Your task to perform on an android device: Search for "corsair k70" on bestbuy.com, select the first entry, add it to the cart, then select checkout. Image 0: 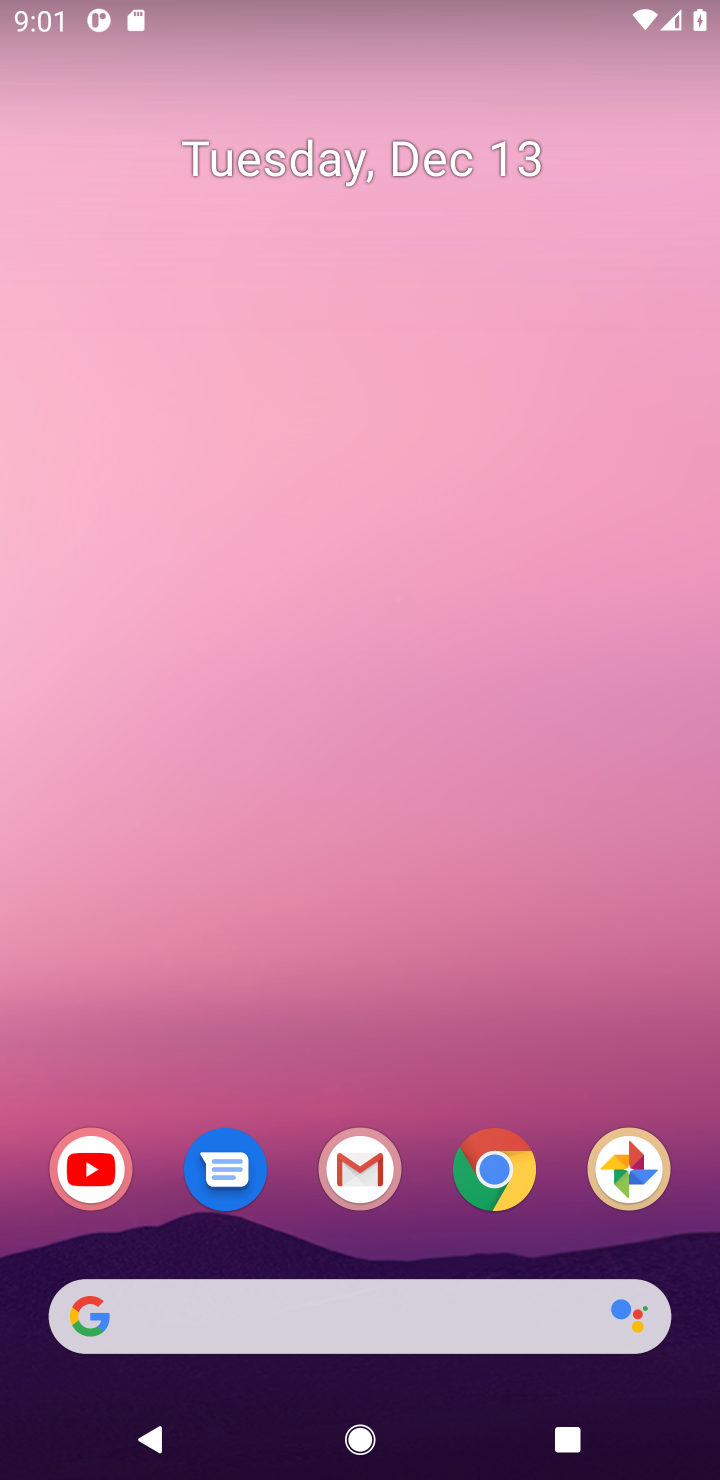
Step 0: click (472, 1201)
Your task to perform on an android device: Search for "corsair k70" on bestbuy.com, select the first entry, add it to the cart, then select checkout. Image 1: 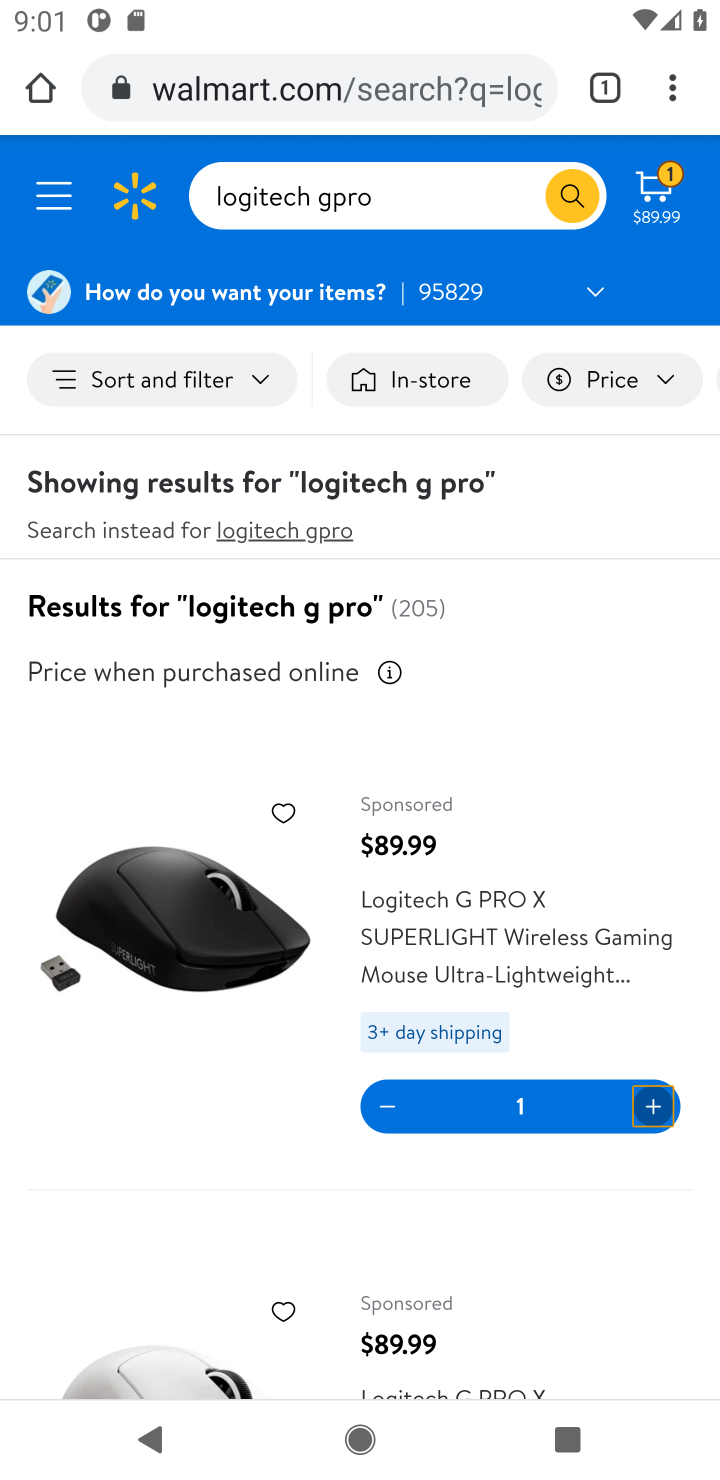
Step 1: click (267, 114)
Your task to perform on an android device: Search for "corsair k70" on bestbuy.com, select the first entry, add it to the cart, then select checkout. Image 2: 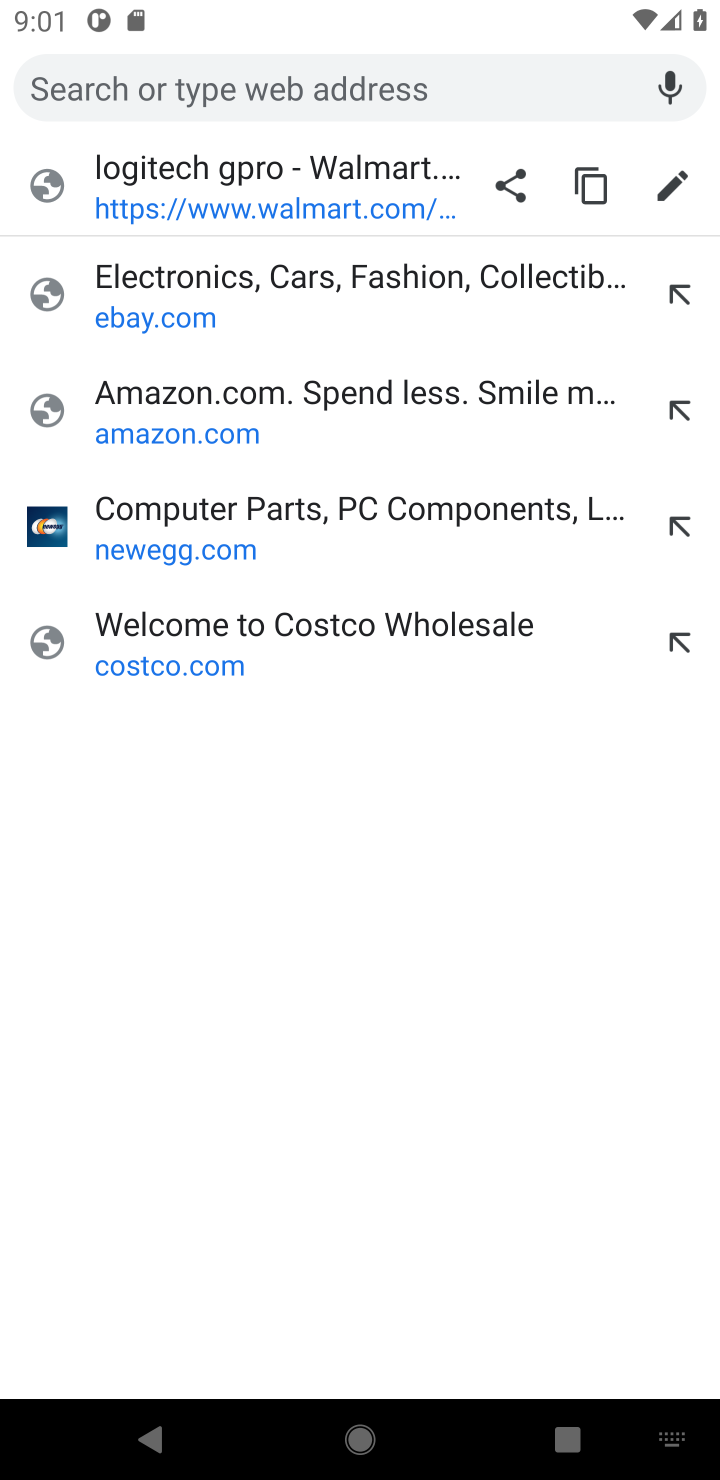
Step 2: type "esybuy"
Your task to perform on an android device: Search for "corsair k70" on bestbuy.com, select the first entry, add it to the cart, then select checkout. Image 3: 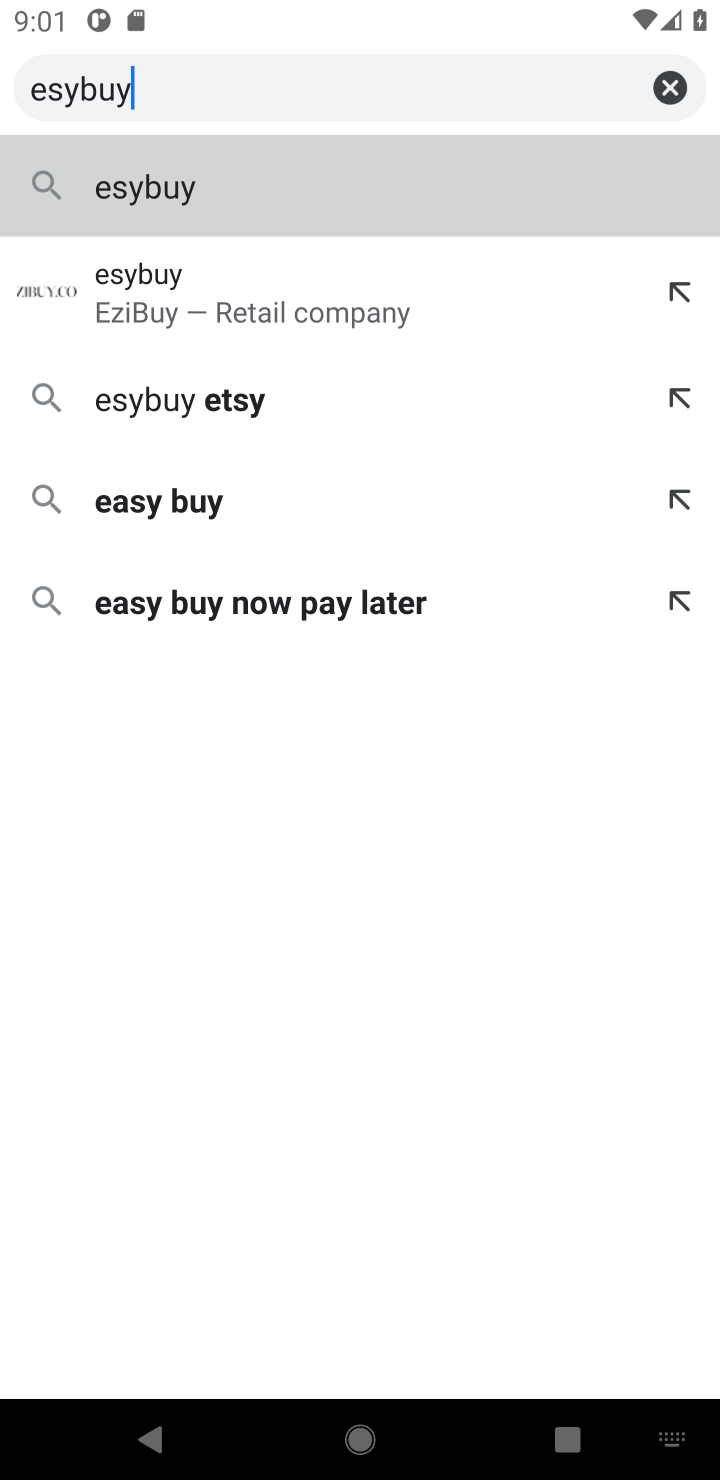
Step 3: click (653, 94)
Your task to perform on an android device: Search for "corsair k70" on bestbuy.com, select the first entry, add it to the cart, then select checkout. Image 4: 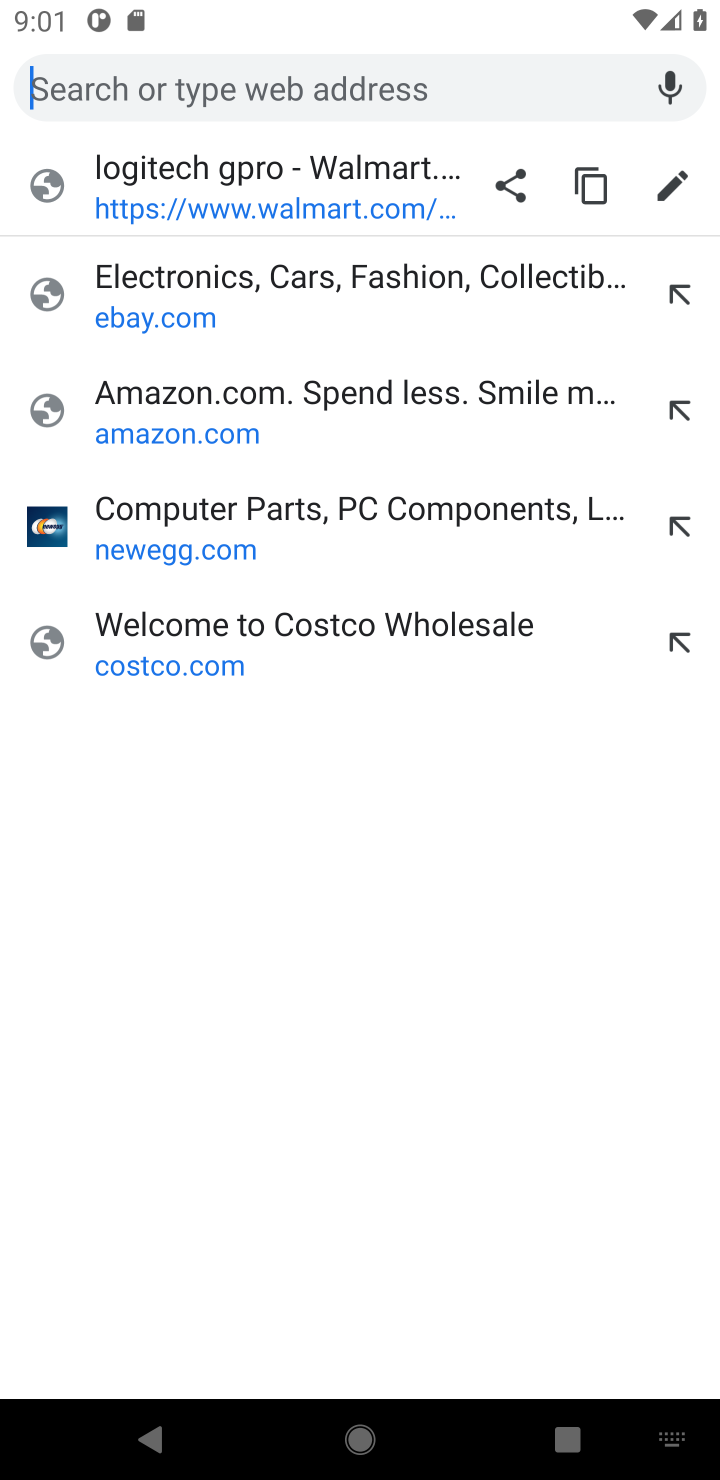
Step 4: type "bestbuy"
Your task to perform on an android device: Search for "corsair k70" on bestbuy.com, select the first entry, add it to the cart, then select checkout. Image 5: 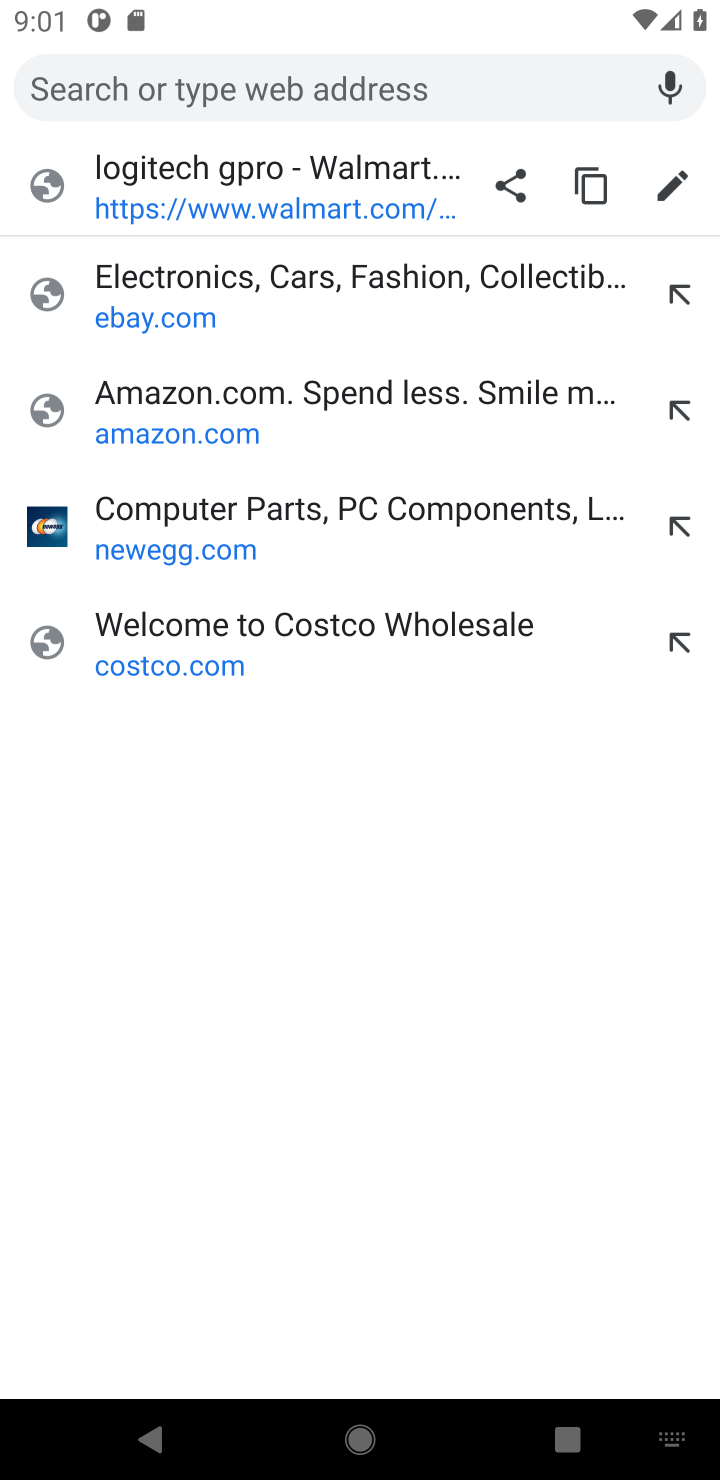
Step 5: click (272, 82)
Your task to perform on an android device: Search for "corsair k70" on bestbuy.com, select the first entry, add it to the cart, then select checkout. Image 6: 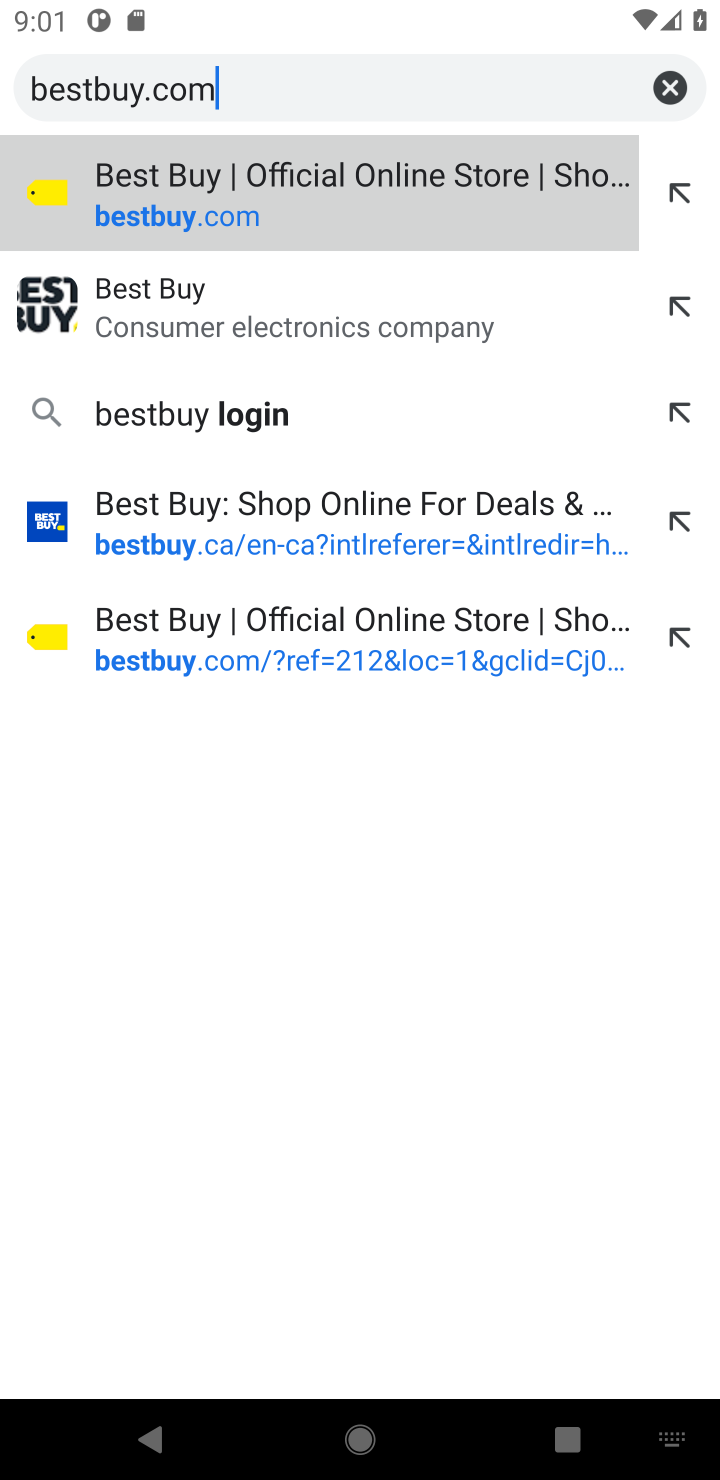
Step 6: click (272, 82)
Your task to perform on an android device: Search for "corsair k70" on bestbuy.com, select the first entry, add it to the cart, then select checkout. Image 7: 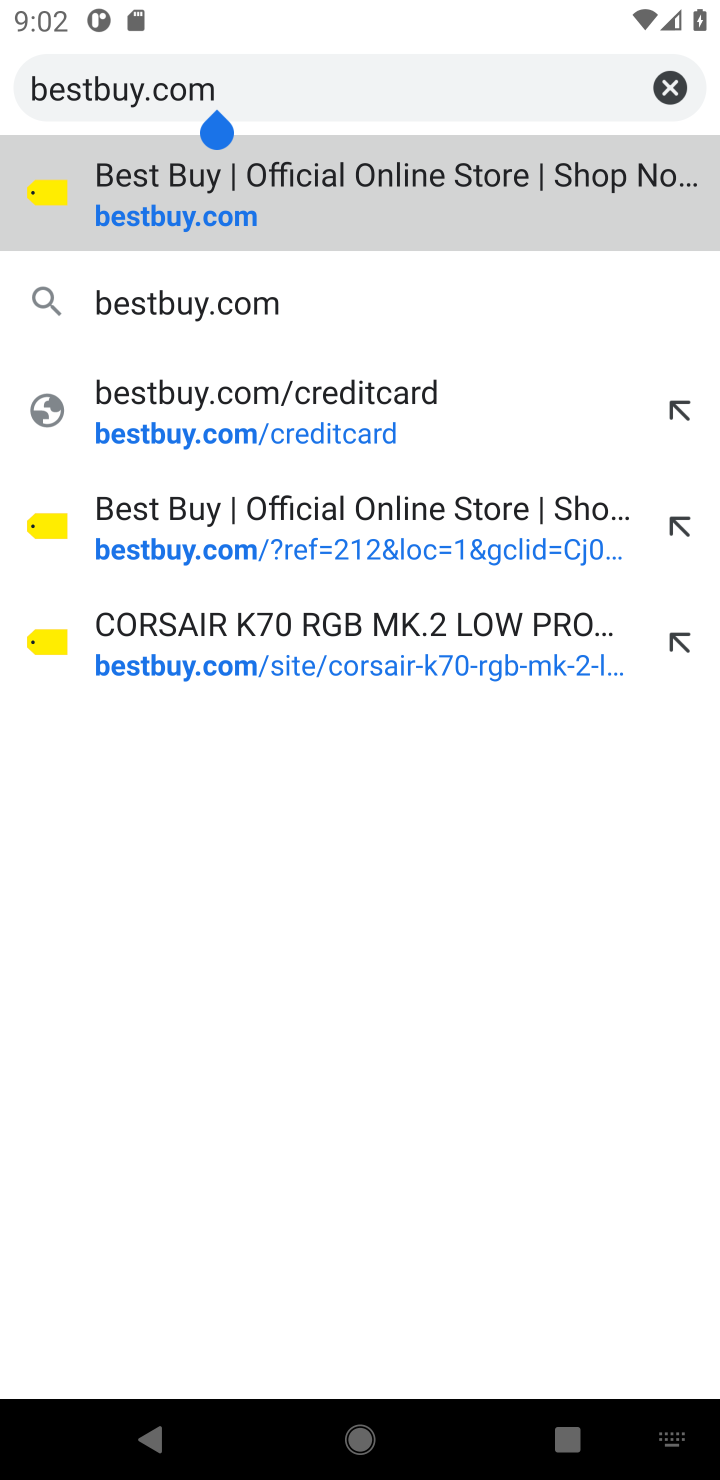
Step 7: click (253, 183)
Your task to perform on an android device: Search for "corsair k70" on bestbuy.com, select the first entry, add it to the cart, then select checkout. Image 8: 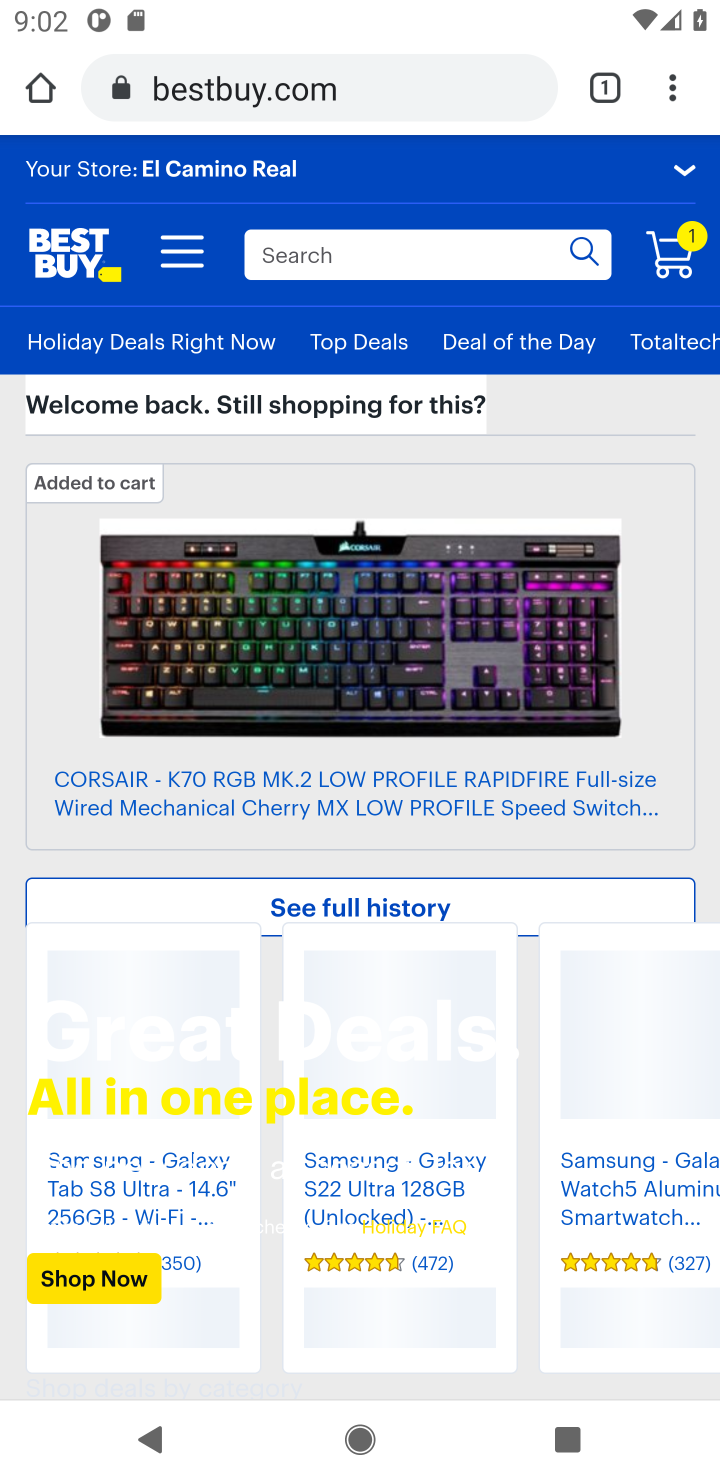
Step 8: click (459, 266)
Your task to perform on an android device: Search for "corsair k70" on bestbuy.com, select the first entry, add it to the cart, then select checkout. Image 9: 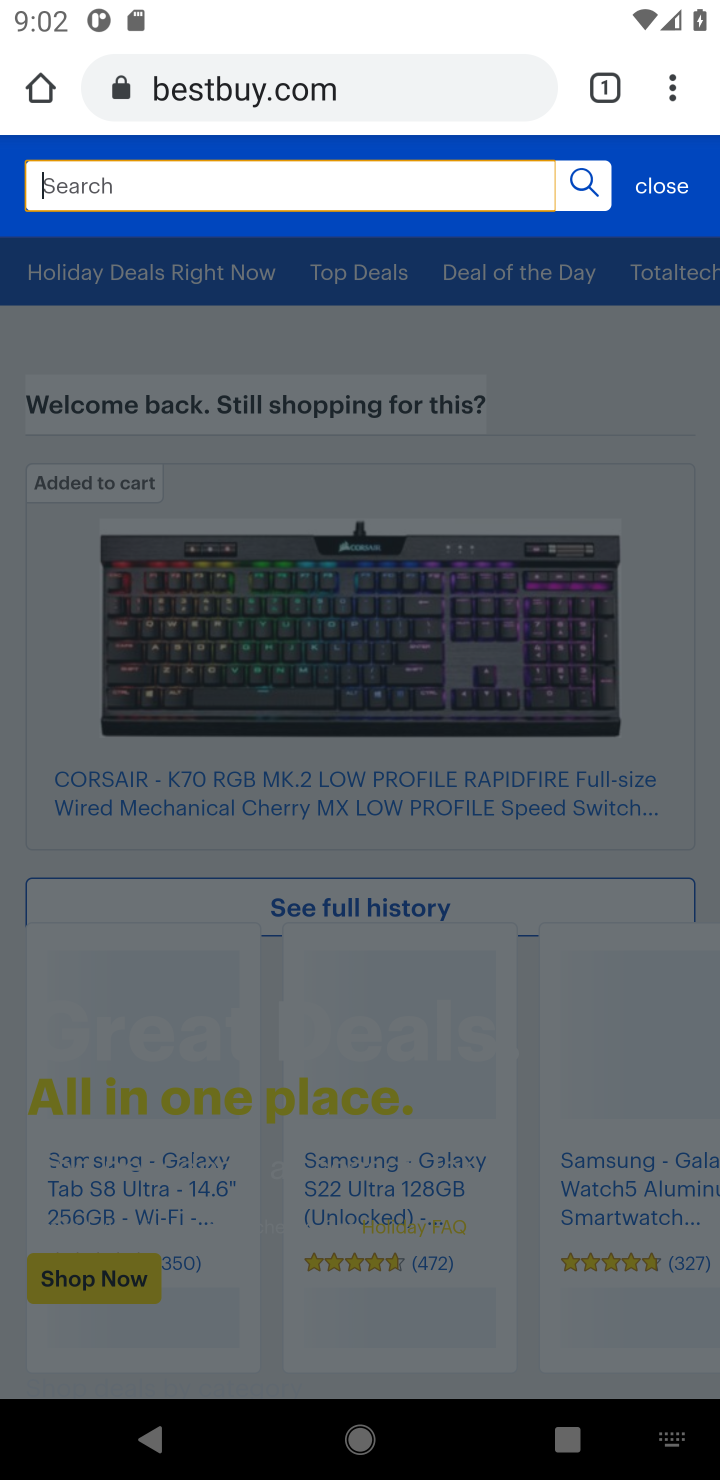
Step 9: type "corsair k70"
Your task to perform on an android device: Search for "corsair k70" on bestbuy.com, select the first entry, add it to the cart, then select checkout. Image 10: 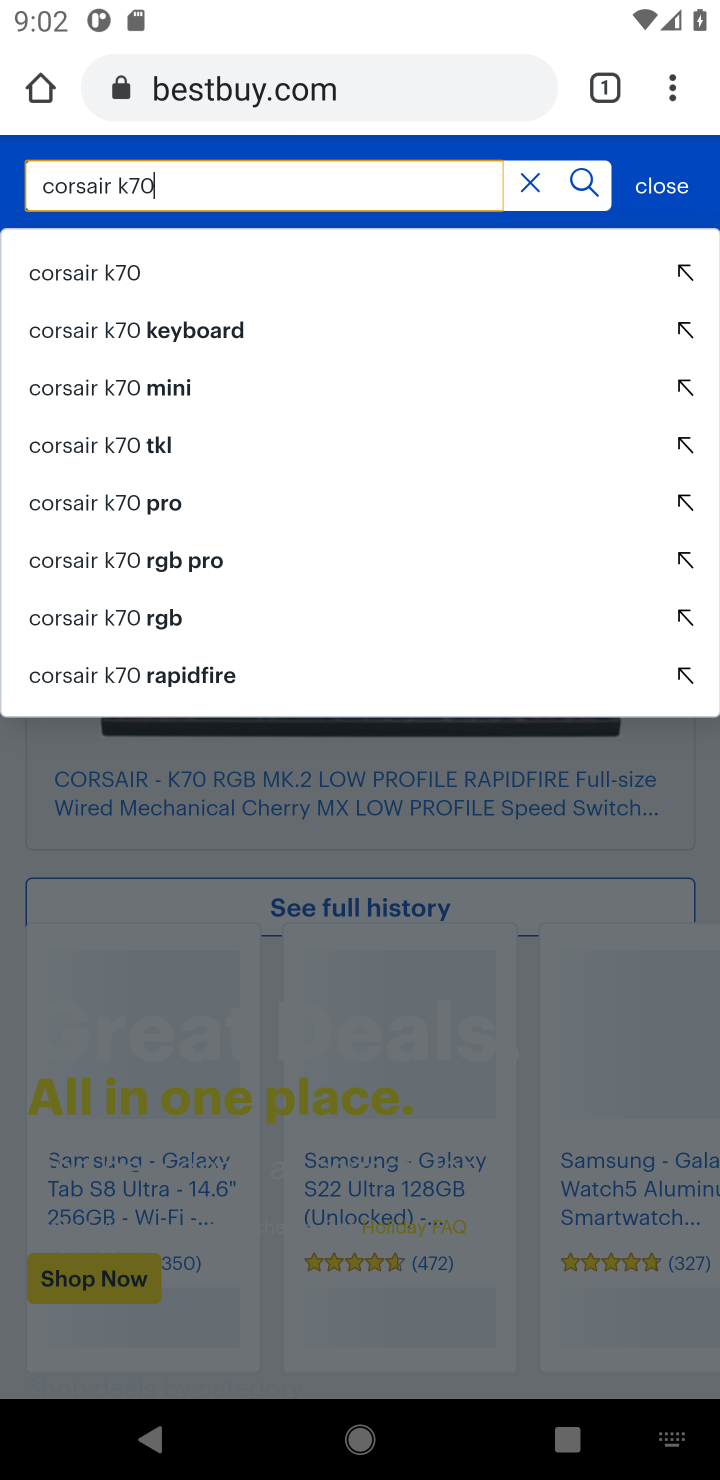
Step 10: click (18, 266)
Your task to perform on an android device: Search for "corsair k70" on bestbuy.com, select the first entry, add it to the cart, then select checkout. Image 11: 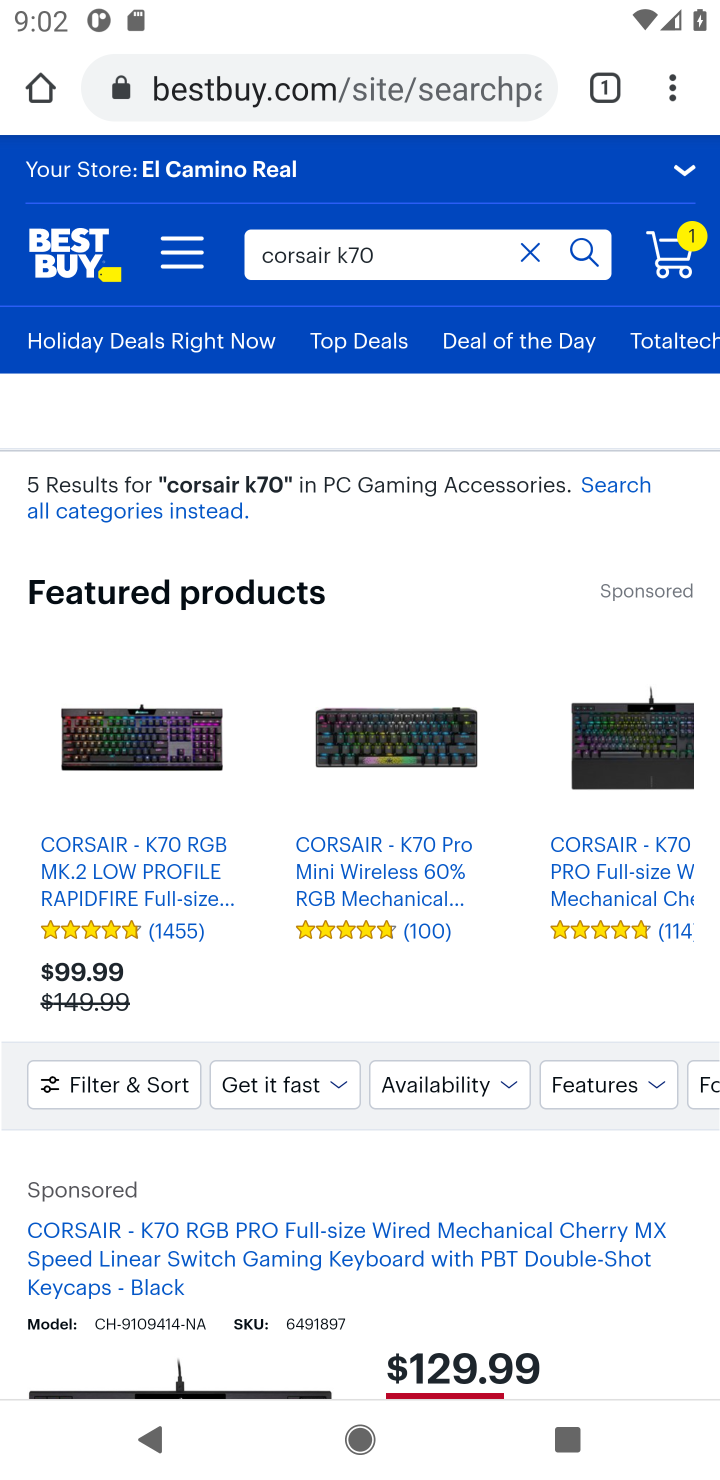
Step 11: click (143, 879)
Your task to perform on an android device: Search for "corsair k70" on bestbuy.com, select the first entry, add it to the cart, then select checkout. Image 12: 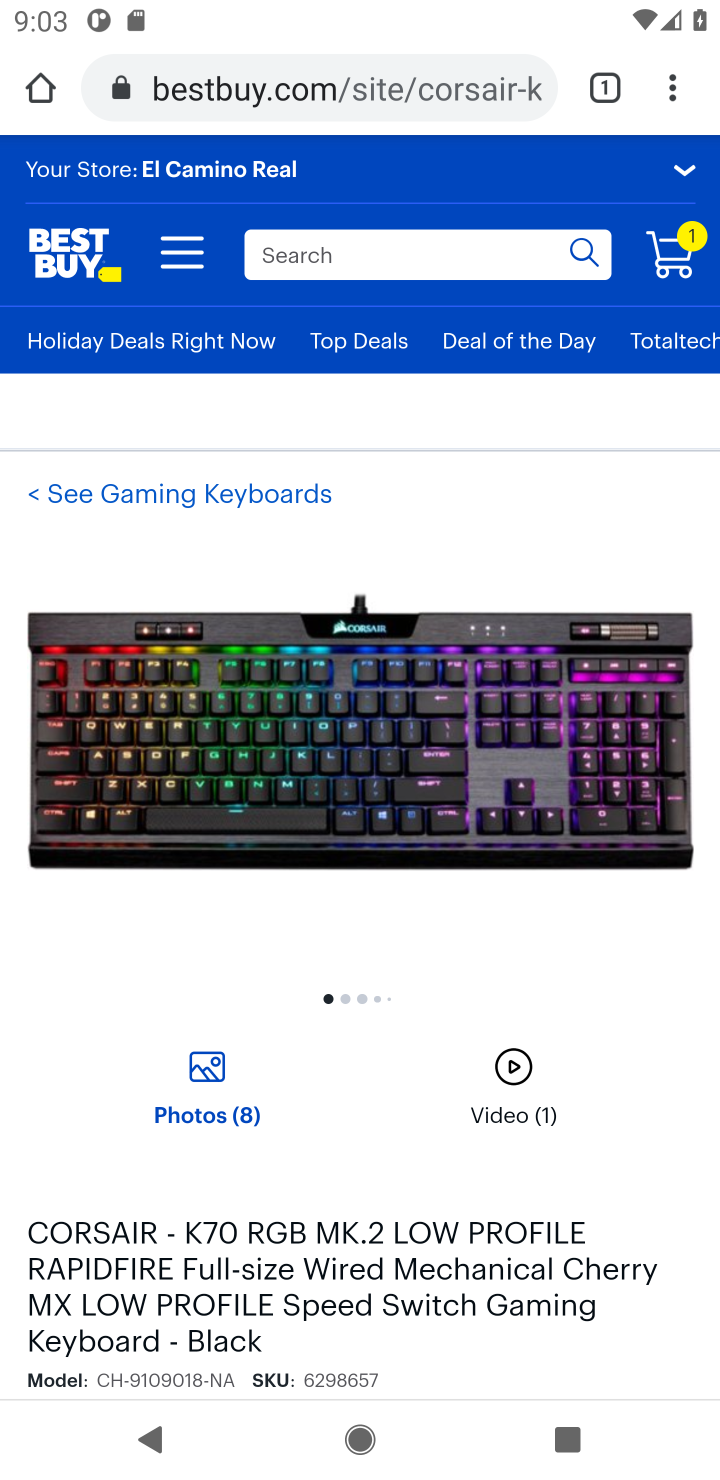
Step 12: drag from (332, 1116) to (304, 459)
Your task to perform on an android device: Search for "corsair k70" on bestbuy.com, select the first entry, add it to the cart, then select checkout. Image 13: 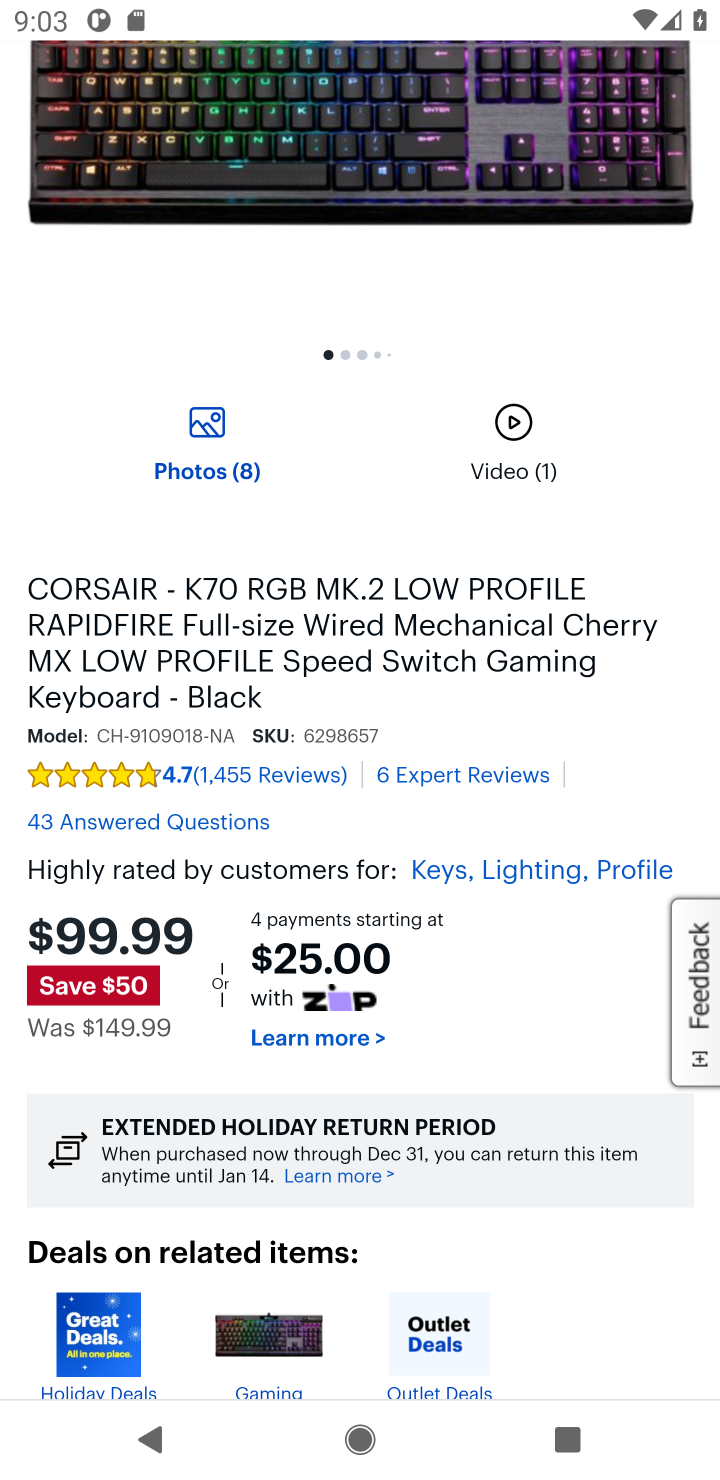
Step 13: drag from (546, 1219) to (544, 397)
Your task to perform on an android device: Search for "corsair k70" on bestbuy.com, select the first entry, add it to the cart, then select checkout. Image 14: 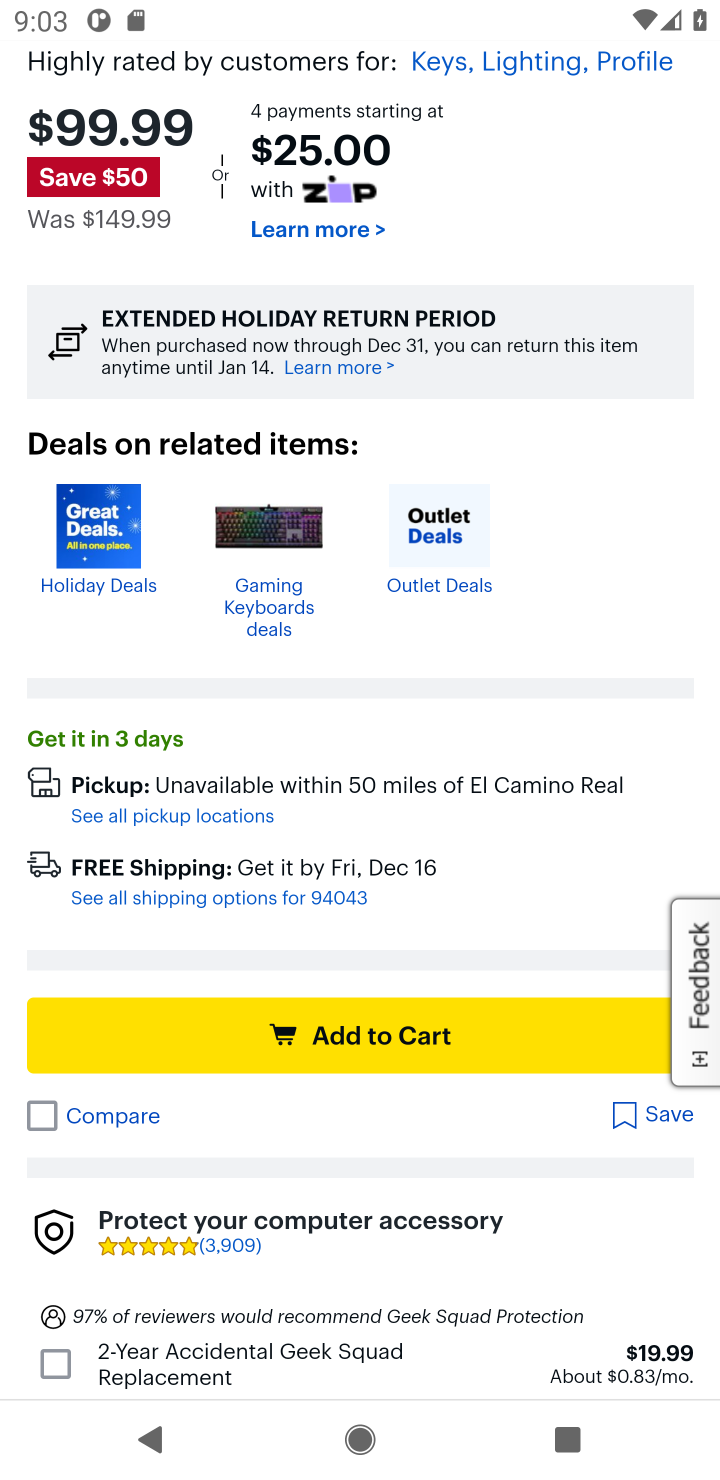
Step 14: click (379, 1056)
Your task to perform on an android device: Search for "corsair k70" on bestbuy.com, select the first entry, add it to the cart, then select checkout. Image 15: 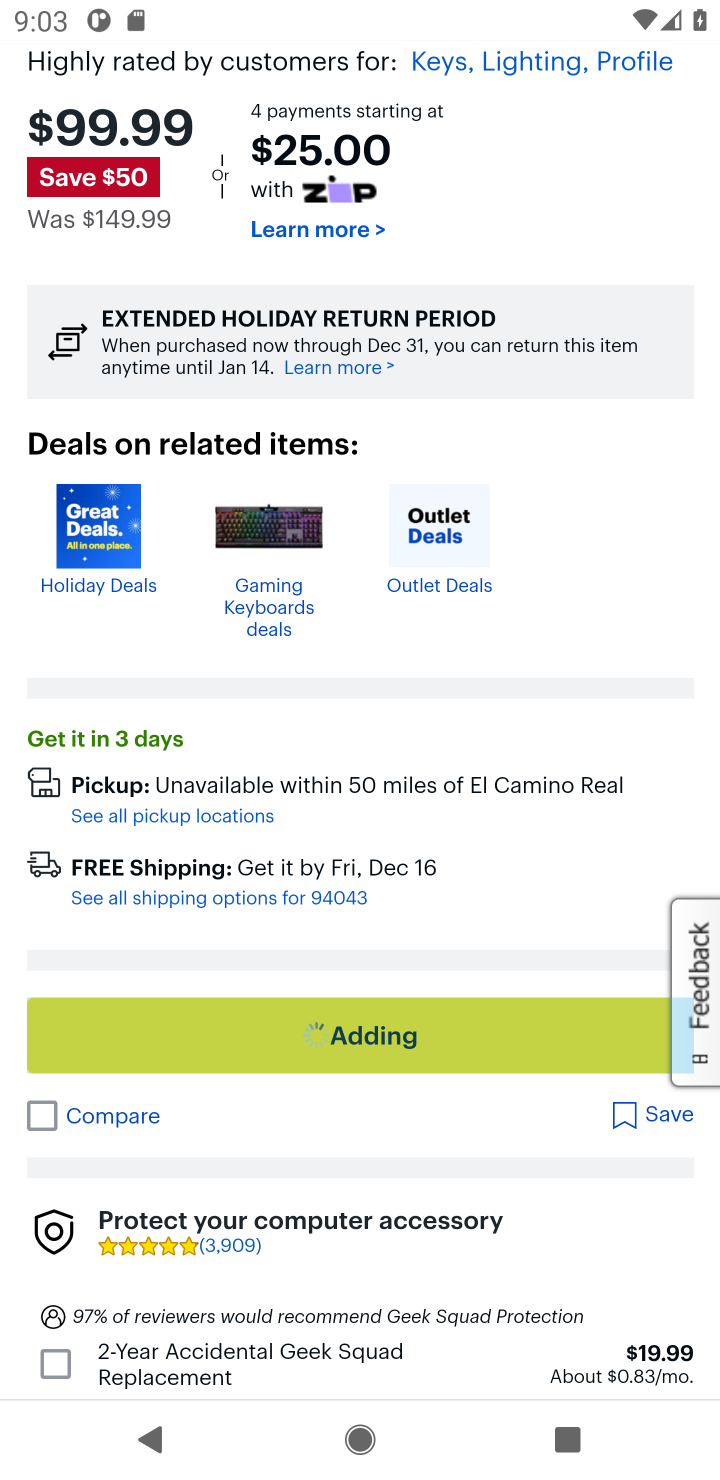
Step 15: task complete